Your task to perform on an android device: turn on improve location accuracy Image 0: 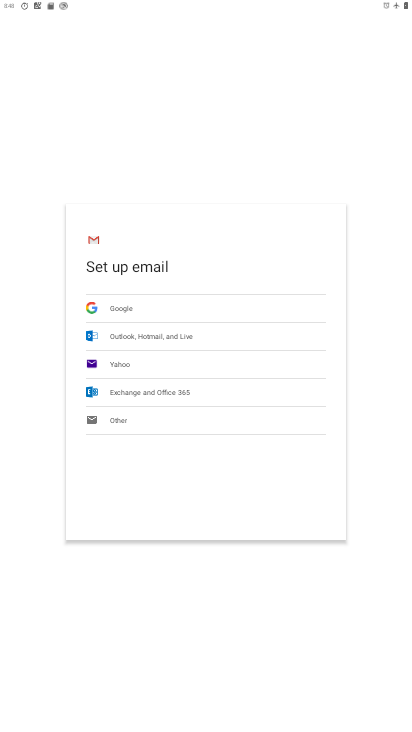
Step 0: press home button
Your task to perform on an android device: turn on improve location accuracy Image 1: 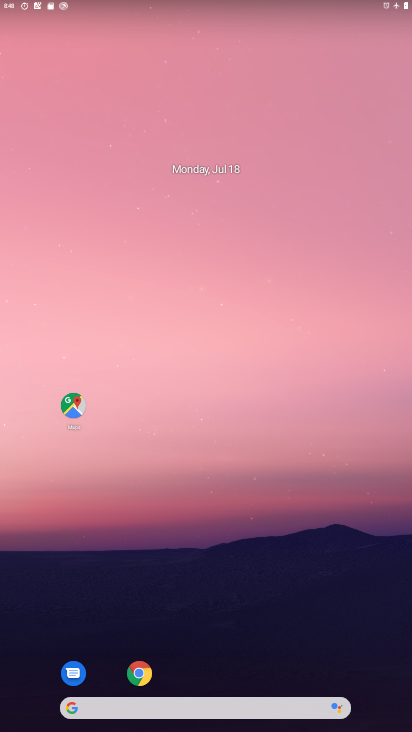
Step 1: drag from (224, 576) to (217, 240)
Your task to perform on an android device: turn on improve location accuracy Image 2: 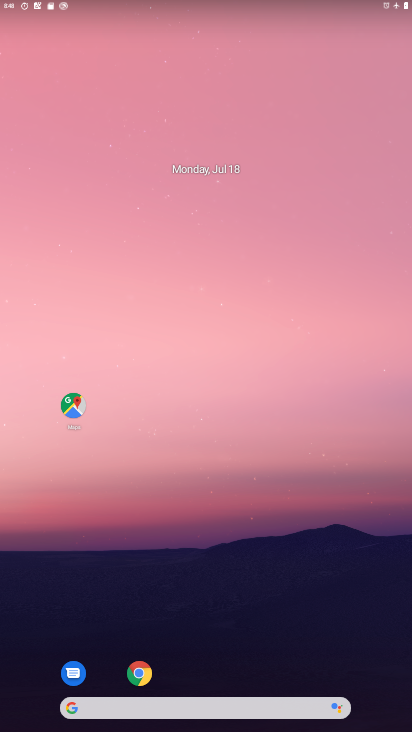
Step 2: drag from (180, 473) to (160, 210)
Your task to perform on an android device: turn on improve location accuracy Image 3: 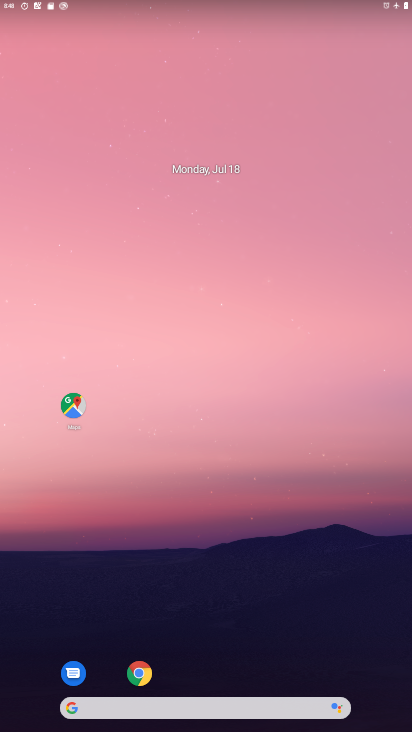
Step 3: drag from (207, 657) to (208, 217)
Your task to perform on an android device: turn on improve location accuracy Image 4: 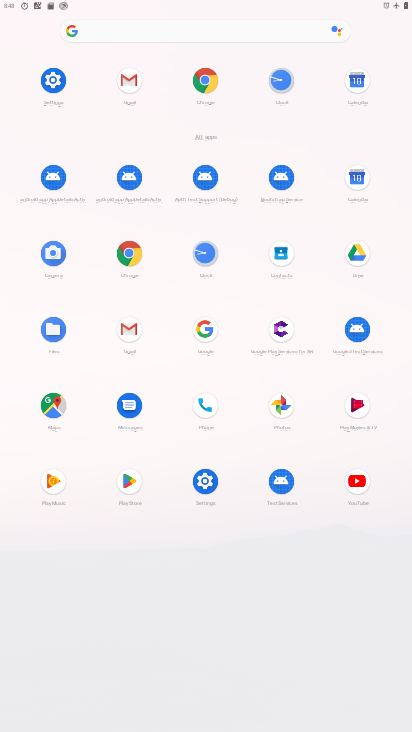
Step 4: click (55, 84)
Your task to perform on an android device: turn on improve location accuracy Image 5: 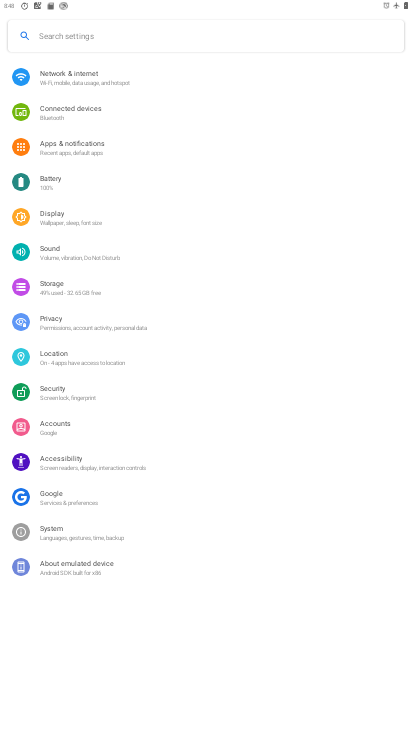
Step 5: click (107, 364)
Your task to perform on an android device: turn on improve location accuracy Image 6: 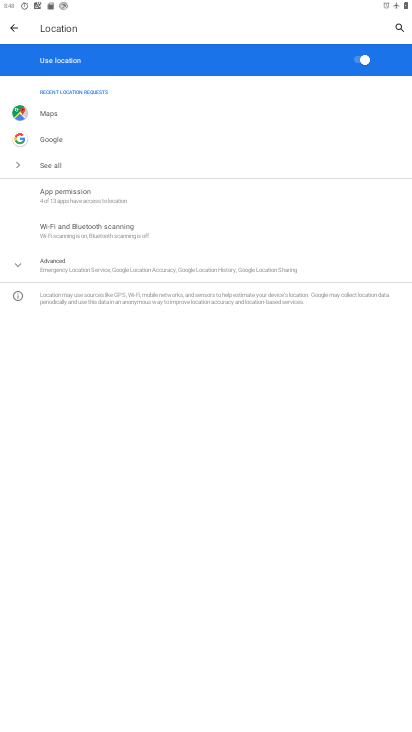
Step 6: click (40, 273)
Your task to perform on an android device: turn on improve location accuracy Image 7: 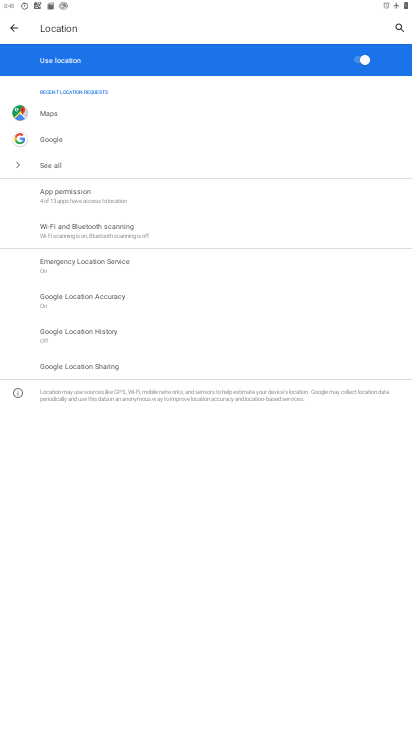
Step 7: click (88, 335)
Your task to perform on an android device: turn on improve location accuracy Image 8: 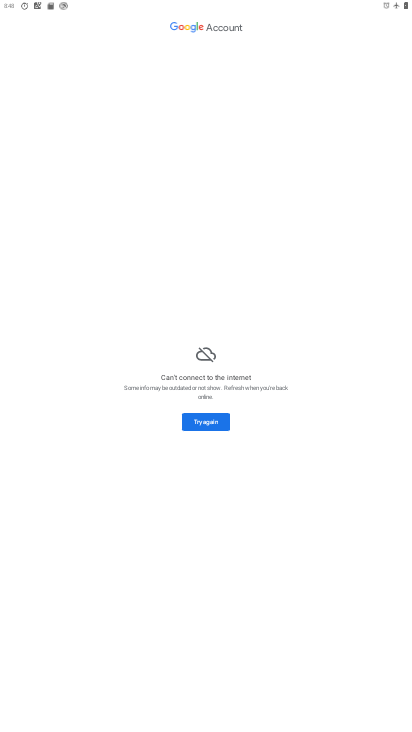
Step 8: task complete